Your task to perform on an android device: Search for vegetarian restaurants on Maps Image 0: 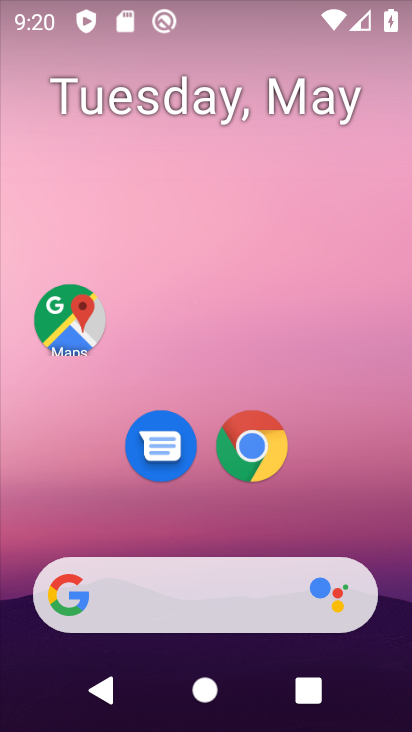
Step 0: click (68, 318)
Your task to perform on an android device: Search for vegetarian restaurants on Maps Image 1: 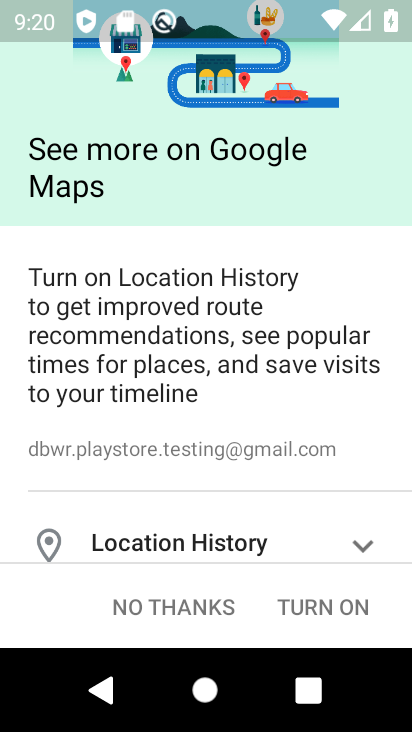
Step 1: click (338, 600)
Your task to perform on an android device: Search for vegetarian restaurants on Maps Image 2: 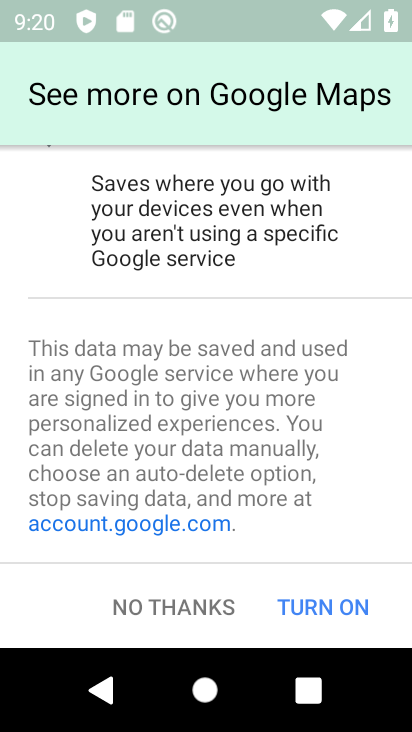
Step 2: click (329, 612)
Your task to perform on an android device: Search for vegetarian restaurants on Maps Image 3: 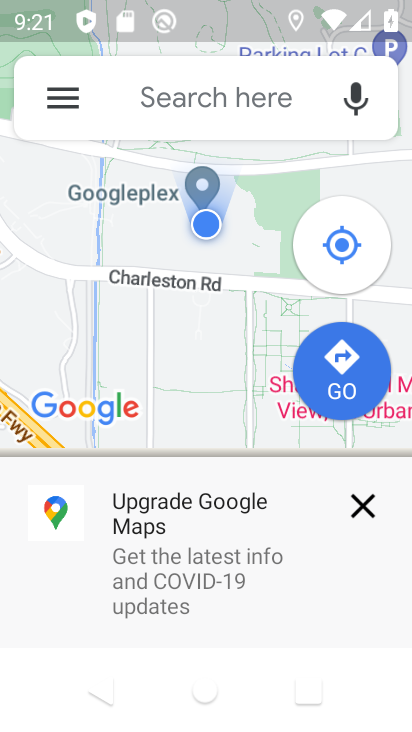
Step 3: click (213, 118)
Your task to perform on an android device: Search for vegetarian restaurants on Maps Image 4: 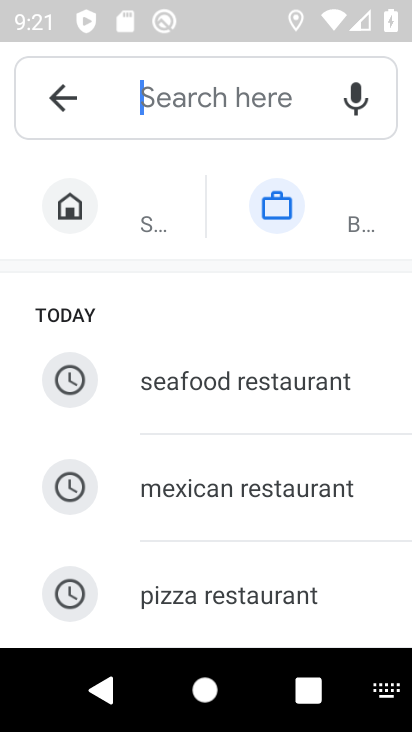
Step 4: drag from (249, 566) to (215, 194)
Your task to perform on an android device: Search for vegetarian restaurants on Maps Image 5: 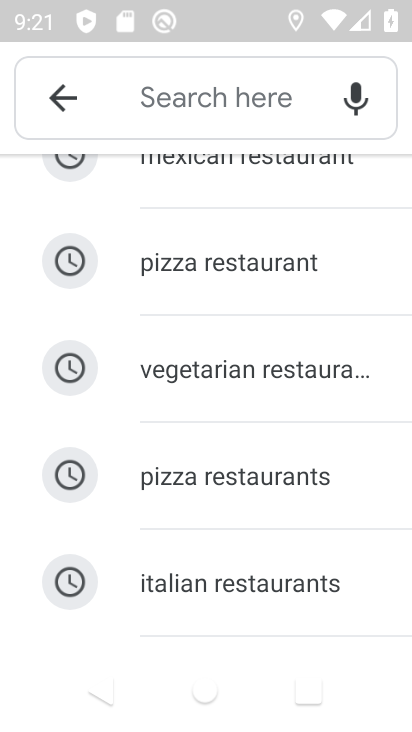
Step 5: click (230, 363)
Your task to perform on an android device: Search for vegetarian restaurants on Maps Image 6: 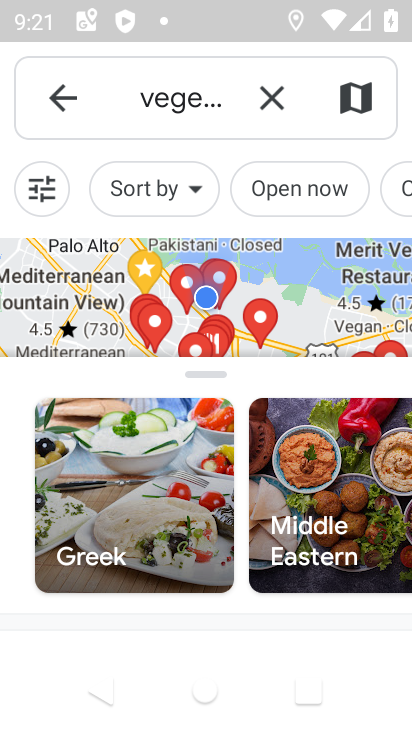
Step 6: task complete